Your task to perform on an android device: turn off smart reply in the gmail app Image 0: 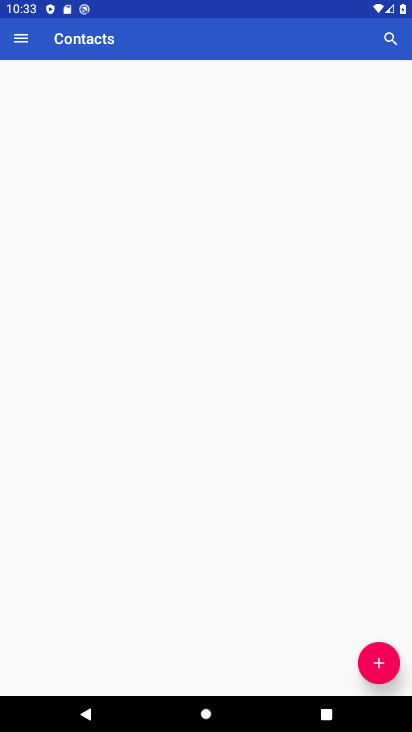
Step 0: click (0, 223)
Your task to perform on an android device: turn off smart reply in the gmail app Image 1: 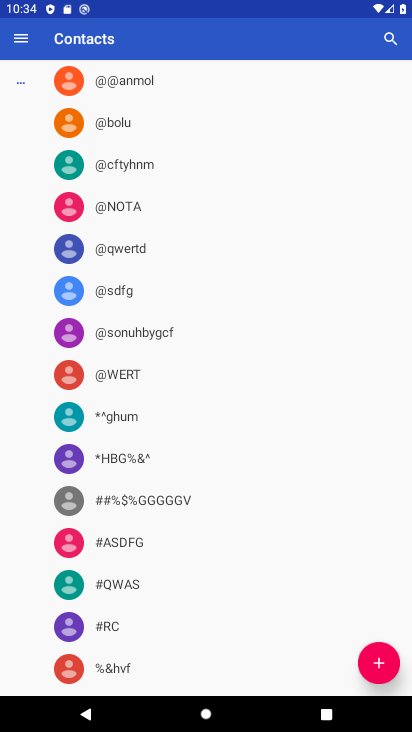
Step 1: press home button
Your task to perform on an android device: turn off smart reply in the gmail app Image 2: 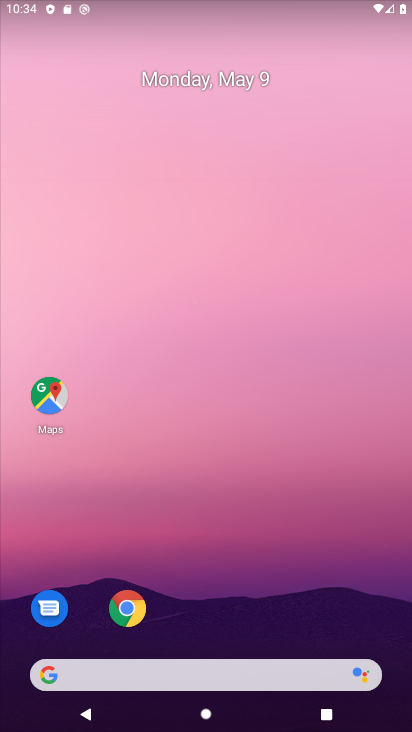
Step 2: drag from (149, 668) to (273, 58)
Your task to perform on an android device: turn off smart reply in the gmail app Image 3: 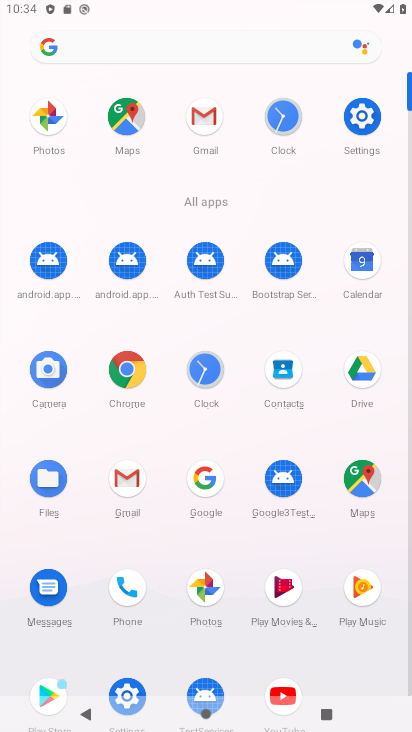
Step 3: click (123, 469)
Your task to perform on an android device: turn off smart reply in the gmail app Image 4: 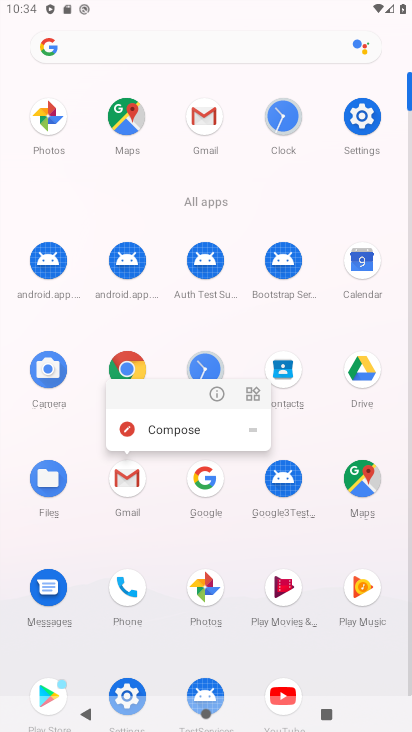
Step 4: click (130, 504)
Your task to perform on an android device: turn off smart reply in the gmail app Image 5: 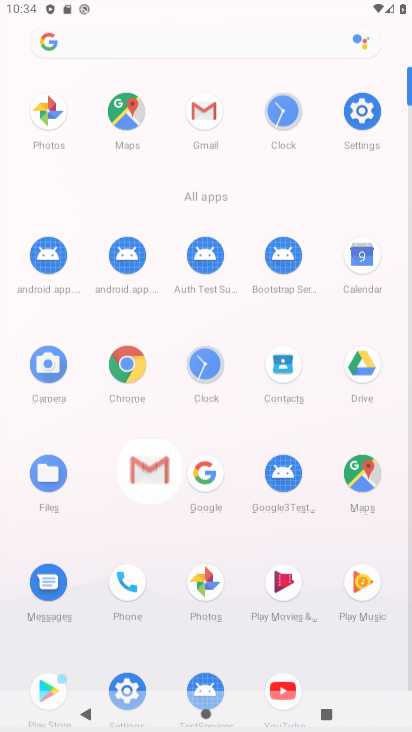
Step 5: click (130, 468)
Your task to perform on an android device: turn off smart reply in the gmail app Image 6: 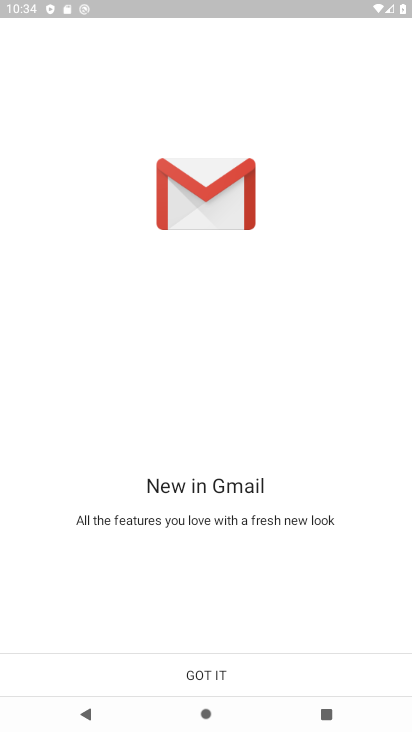
Step 6: click (204, 694)
Your task to perform on an android device: turn off smart reply in the gmail app Image 7: 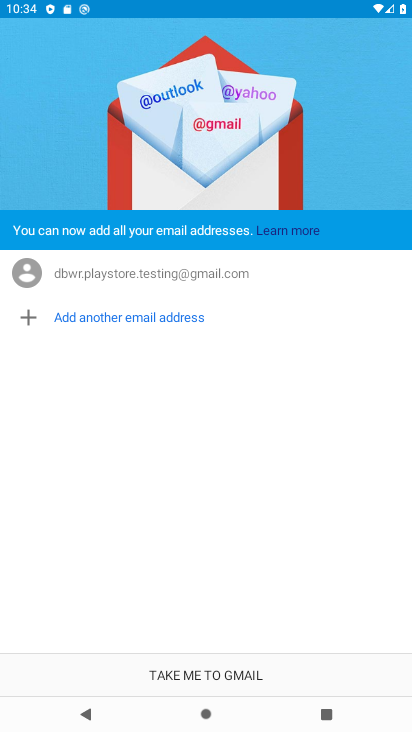
Step 7: click (230, 658)
Your task to perform on an android device: turn off smart reply in the gmail app Image 8: 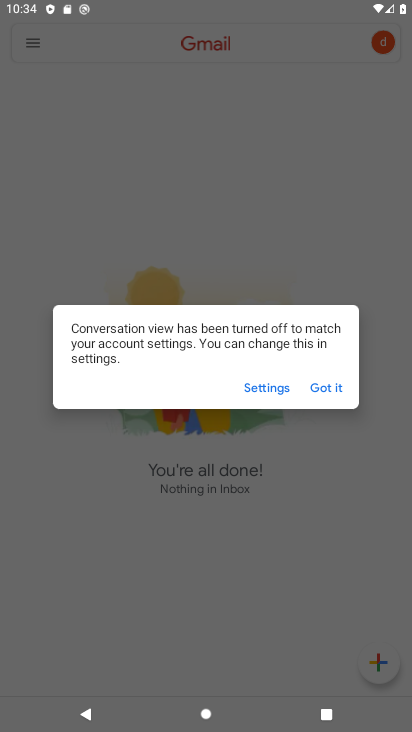
Step 8: click (344, 391)
Your task to perform on an android device: turn off smart reply in the gmail app Image 9: 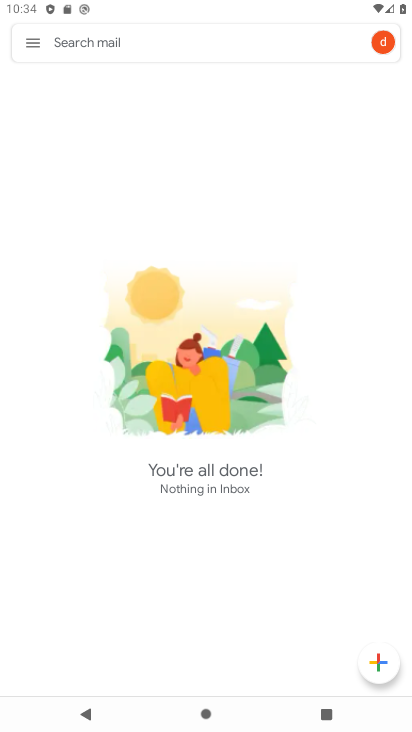
Step 9: click (45, 42)
Your task to perform on an android device: turn off smart reply in the gmail app Image 10: 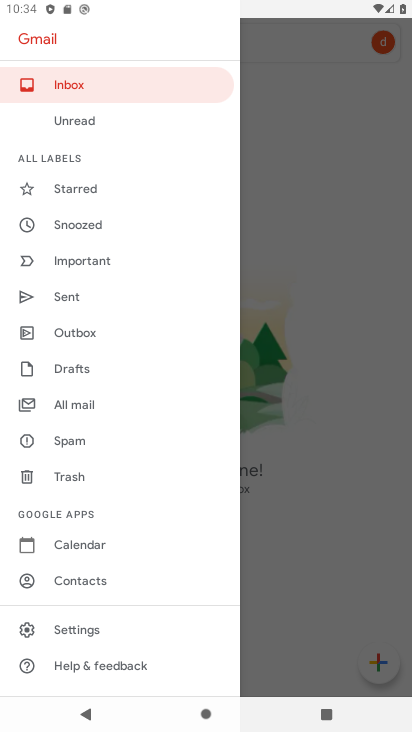
Step 10: drag from (94, 643) to (145, 389)
Your task to perform on an android device: turn off smart reply in the gmail app Image 11: 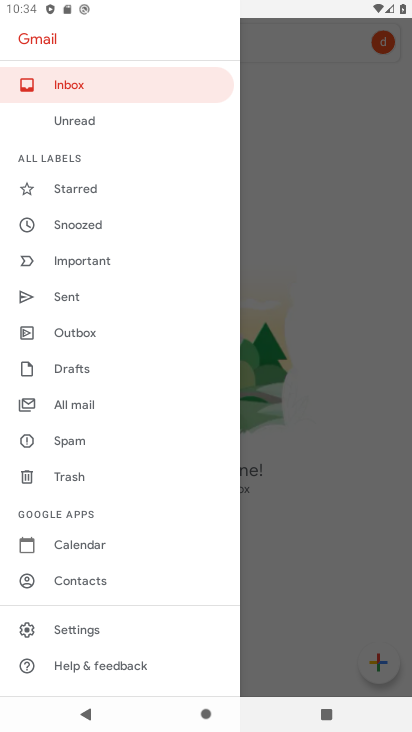
Step 11: click (156, 638)
Your task to perform on an android device: turn off smart reply in the gmail app Image 12: 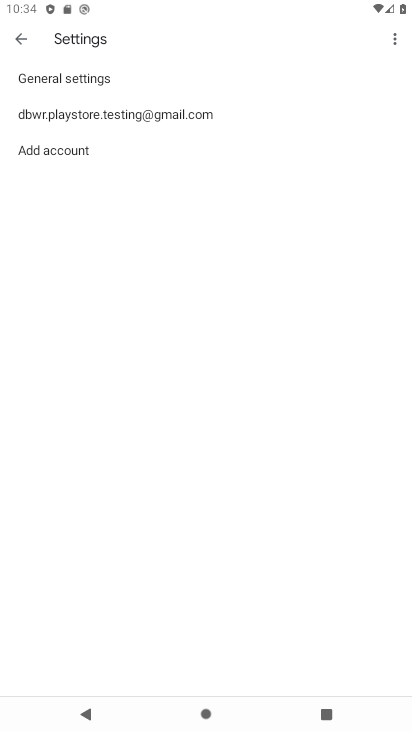
Step 12: click (258, 112)
Your task to perform on an android device: turn off smart reply in the gmail app Image 13: 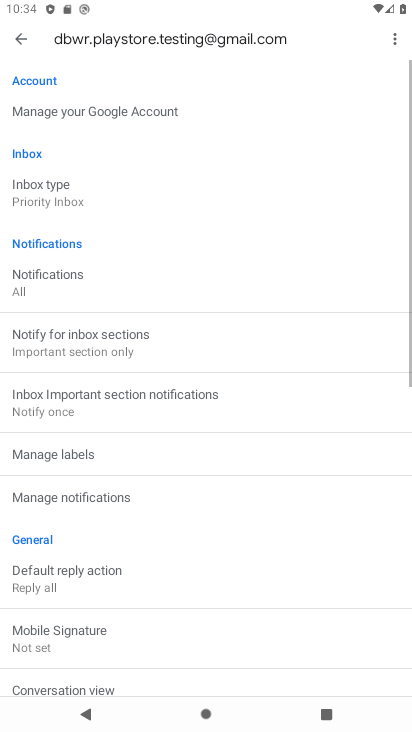
Step 13: drag from (164, 600) to (256, 182)
Your task to perform on an android device: turn off smart reply in the gmail app Image 14: 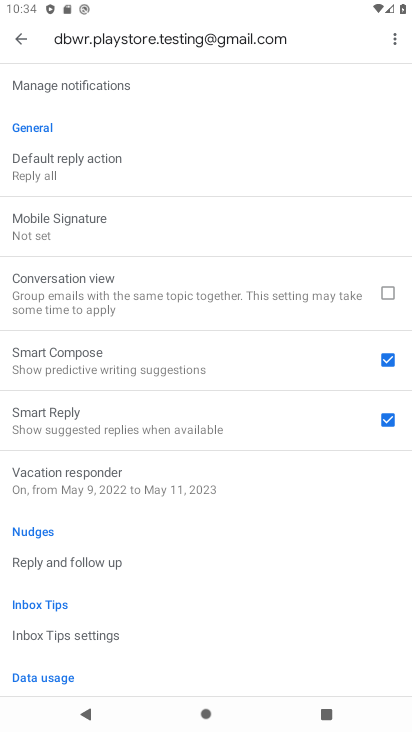
Step 14: click (384, 416)
Your task to perform on an android device: turn off smart reply in the gmail app Image 15: 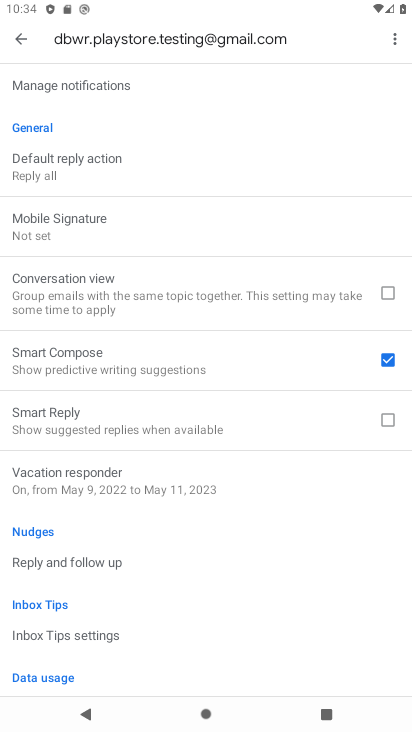
Step 15: task complete